Your task to perform on an android device: Go to Maps Image 0: 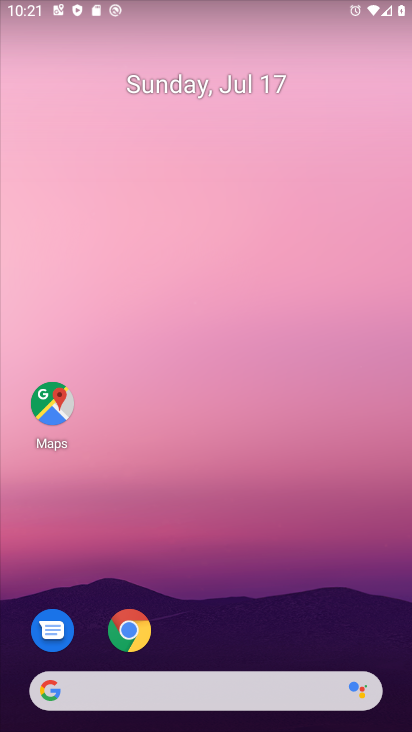
Step 0: drag from (338, 626) to (362, 85)
Your task to perform on an android device: Go to Maps Image 1: 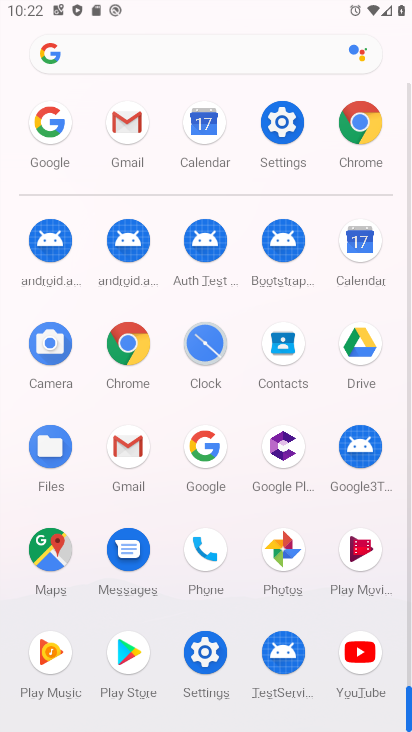
Step 1: click (55, 556)
Your task to perform on an android device: Go to Maps Image 2: 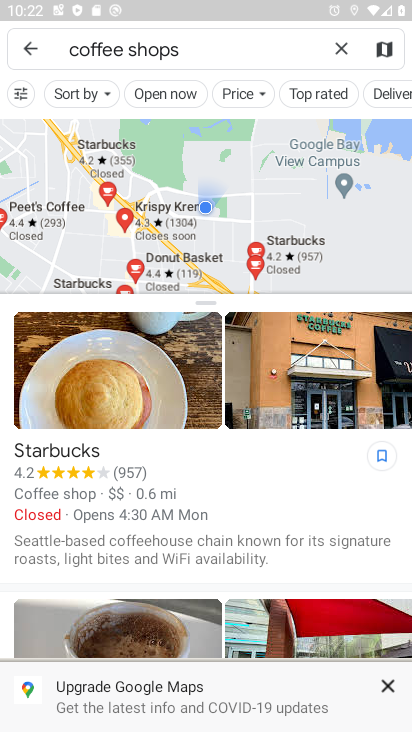
Step 2: task complete